Your task to perform on an android device: Open Maps and search for coffee Image 0: 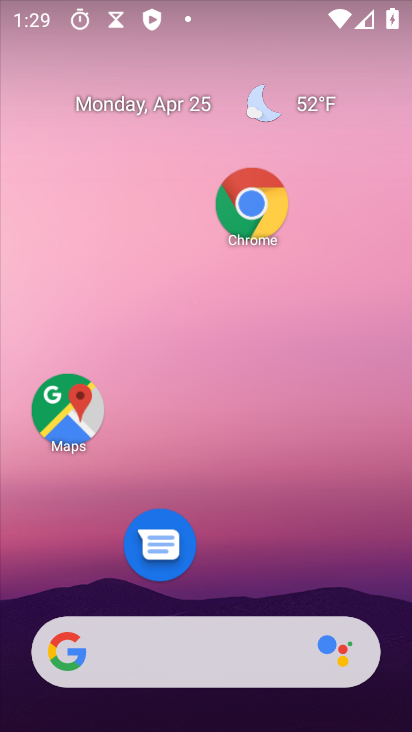
Step 0: drag from (255, 685) to (396, 337)
Your task to perform on an android device: Open Maps and search for coffee Image 1: 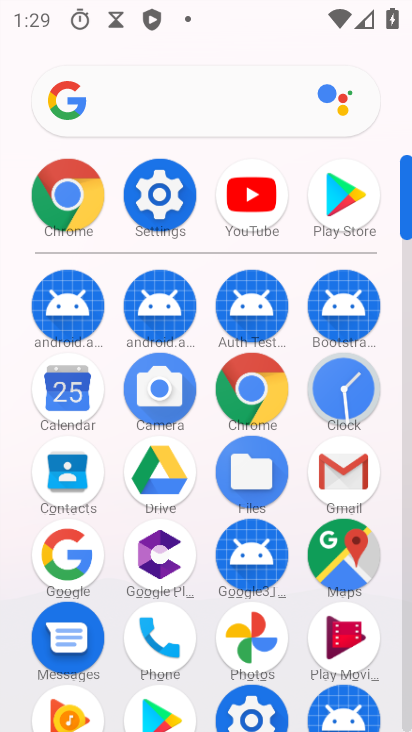
Step 1: click (331, 565)
Your task to perform on an android device: Open Maps and search for coffee Image 2: 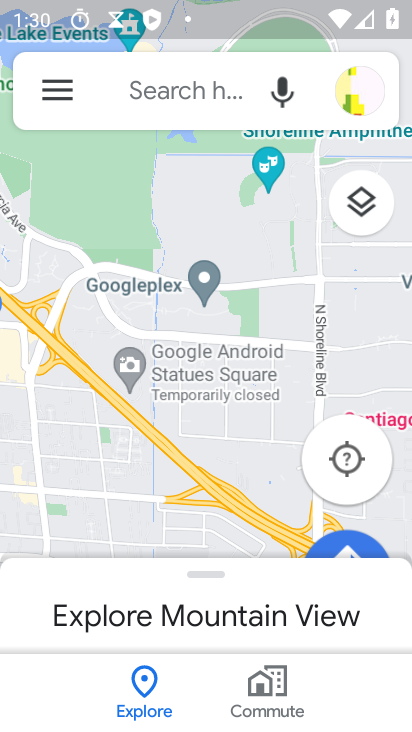
Step 2: click (153, 88)
Your task to perform on an android device: Open Maps and search for coffee Image 3: 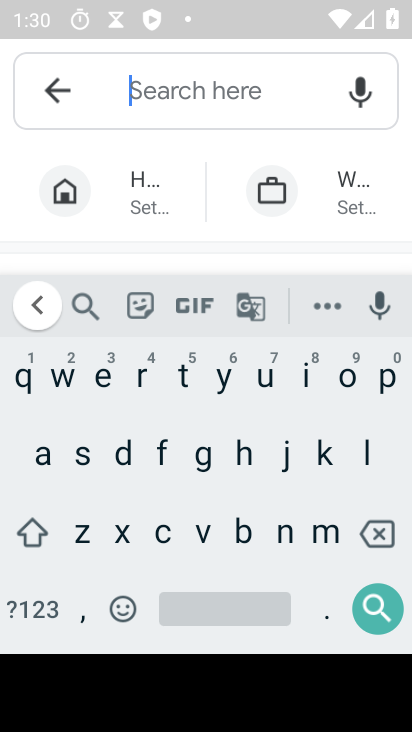
Step 3: click (162, 524)
Your task to perform on an android device: Open Maps and search for coffee Image 4: 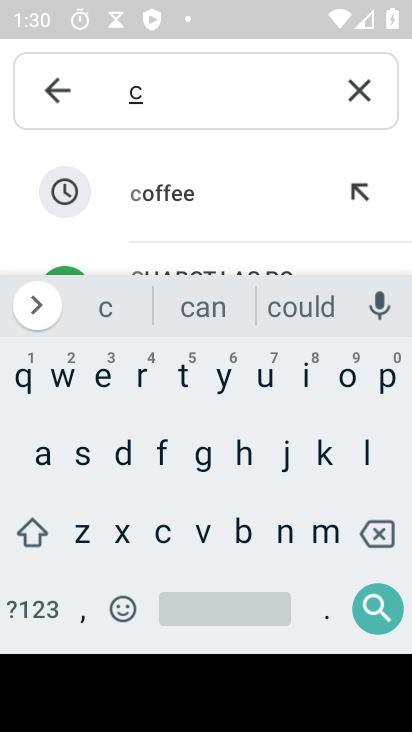
Step 4: click (144, 206)
Your task to perform on an android device: Open Maps and search for coffee Image 5: 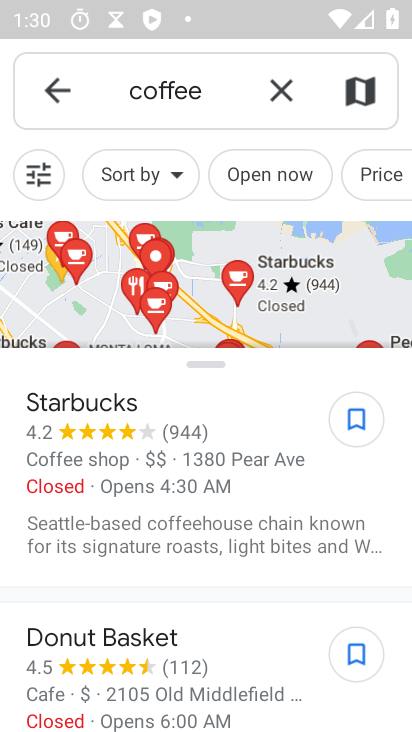
Step 5: click (117, 243)
Your task to perform on an android device: Open Maps and search for coffee Image 6: 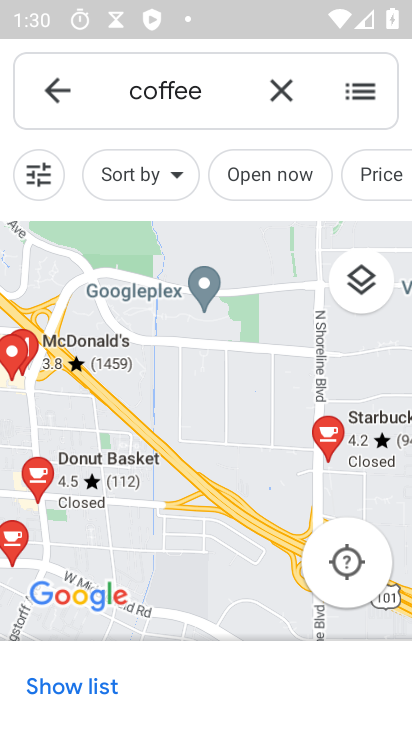
Step 6: task complete